Your task to perform on an android device: manage bookmarks in the chrome app Image 0: 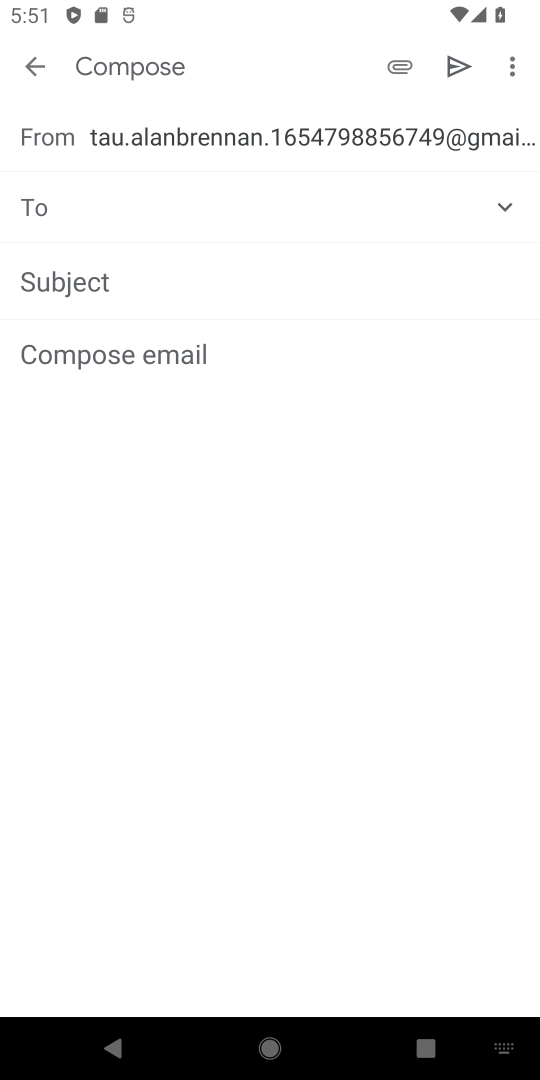
Step 0: press home button
Your task to perform on an android device: manage bookmarks in the chrome app Image 1: 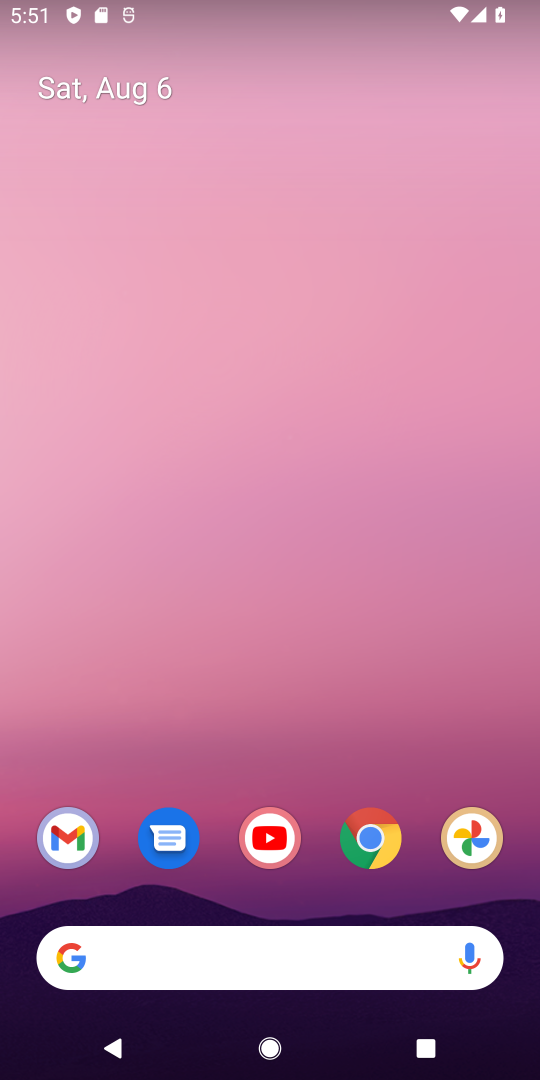
Step 1: click (366, 832)
Your task to perform on an android device: manage bookmarks in the chrome app Image 2: 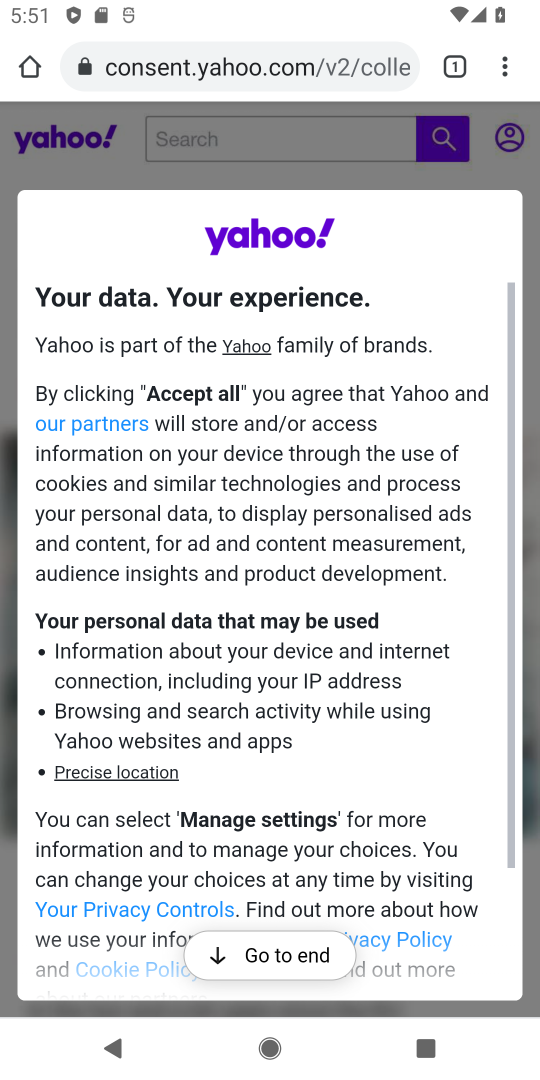
Step 2: click (508, 59)
Your task to perform on an android device: manage bookmarks in the chrome app Image 3: 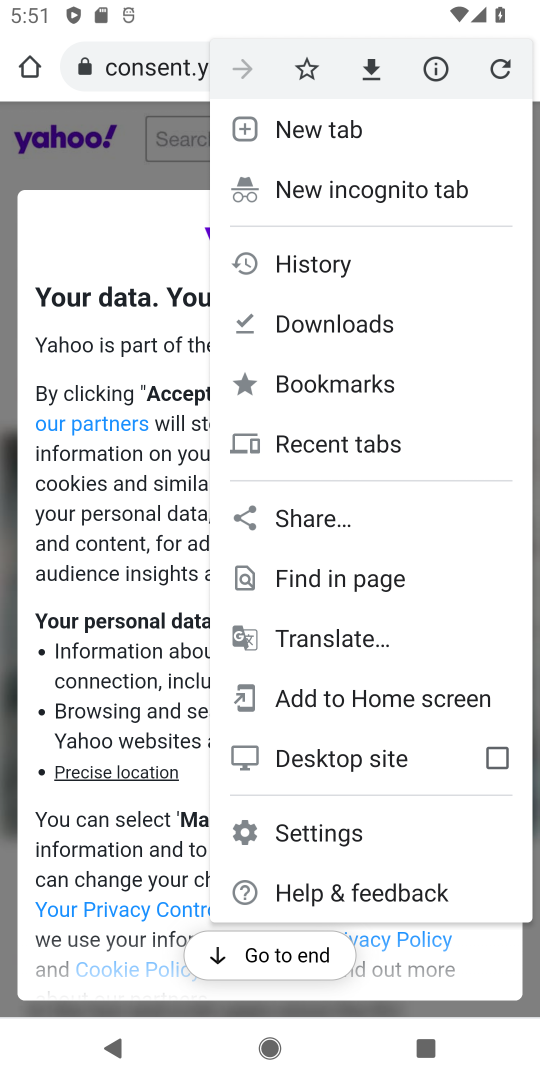
Step 3: click (318, 373)
Your task to perform on an android device: manage bookmarks in the chrome app Image 4: 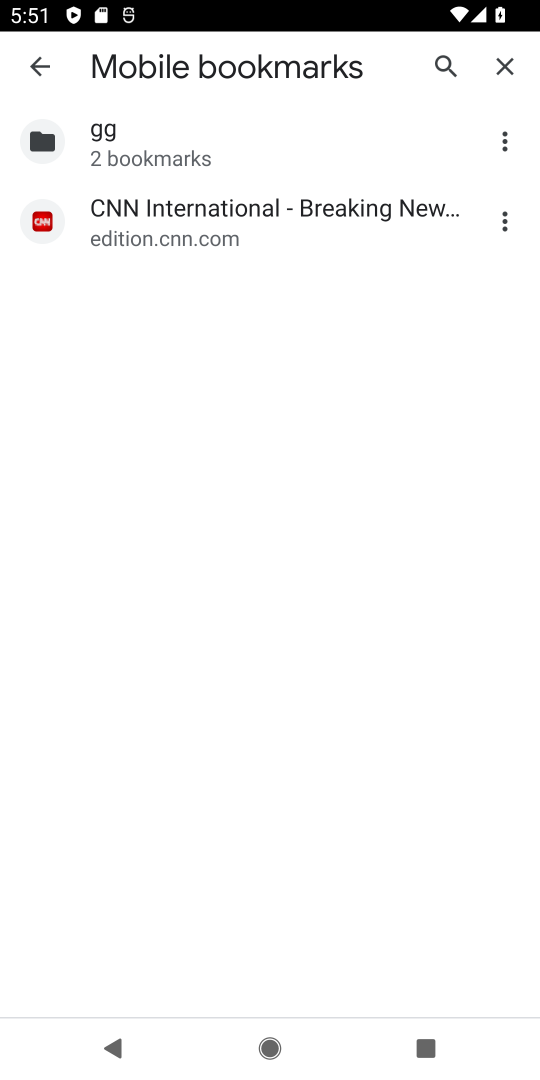
Step 4: click (500, 218)
Your task to perform on an android device: manage bookmarks in the chrome app Image 5: 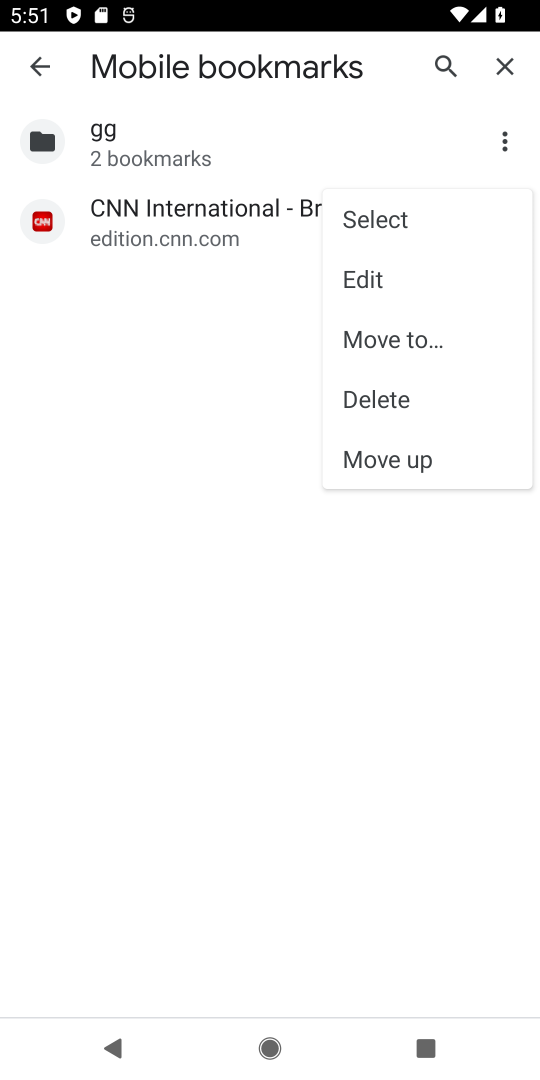
Step 5: click (397, 408)
Your task to perform on an android device: manage bookmarks in the chrome app Image 6: 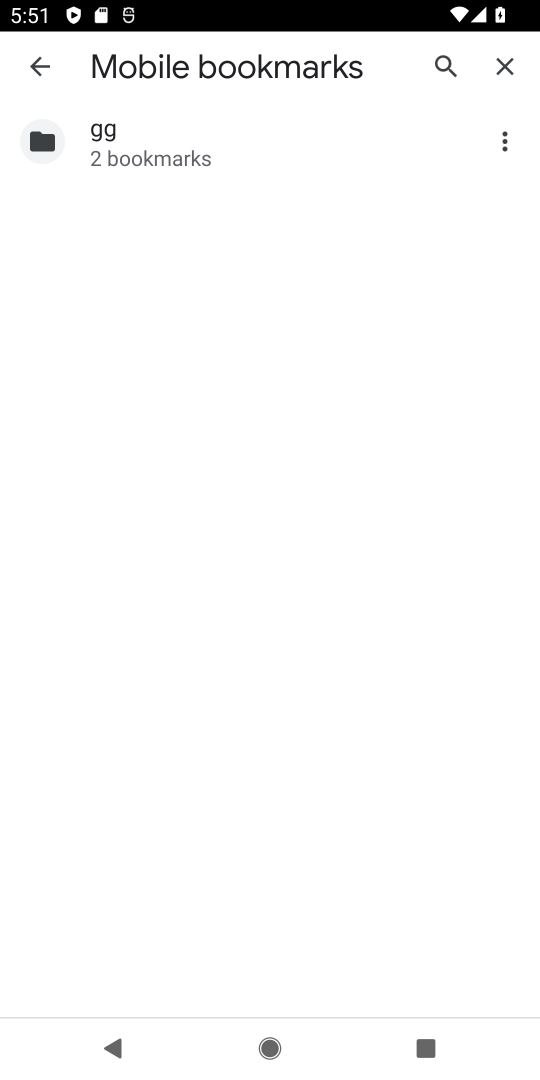
Step 6: task complete